Your task to perform on an android device: all mails in gmail Image 0: 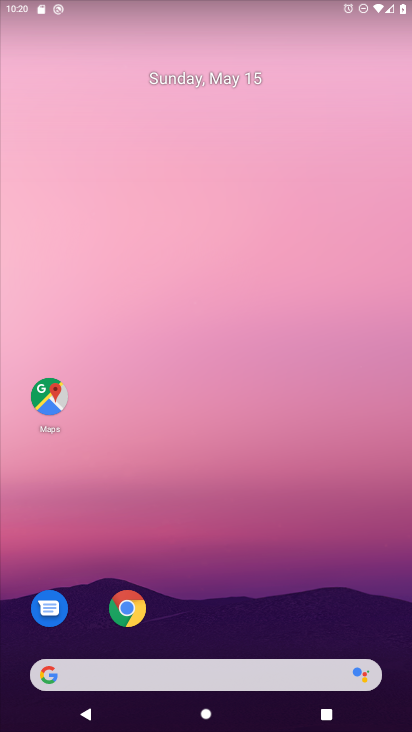
Step 0: drag from (282, 596) to (290, 176)
Your task to perform on an android device: all mails in gmail Image 1: 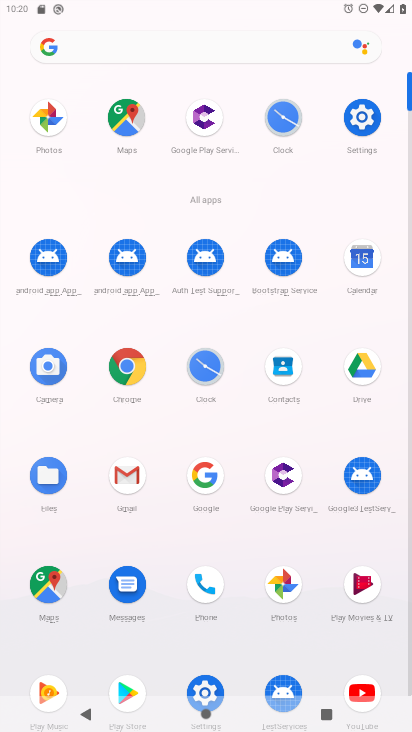
Step 1: drag from (231, 647) to (250, 207)
Your task to perform on an android device: all mails in gmail Image 2: 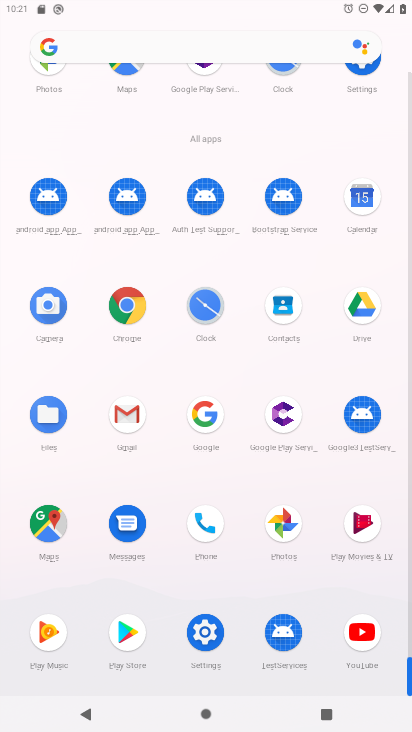
Step 2: click (110, 414)
Your task to perform on an android device: all mails in gmail Image 3: 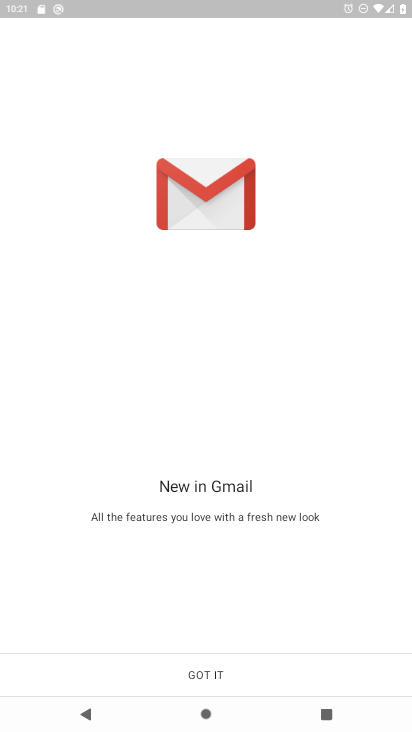
Step 3: click (222, 674)
Your task to perform on an android device: all mails in gmail Image 4: 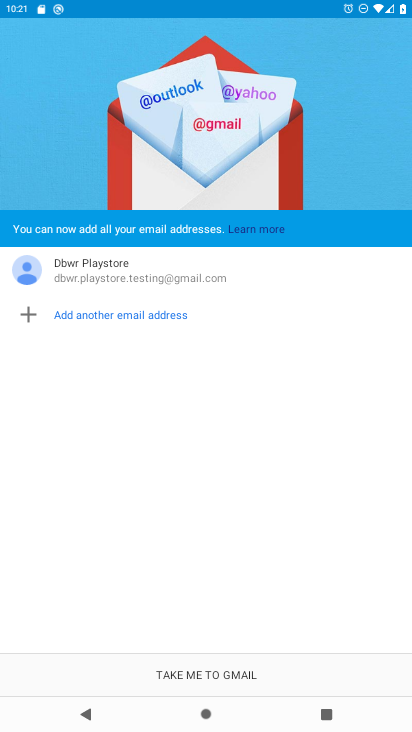
Step 4: click (247, 673)
Your task to perform on an android device: all mails in gmail Image 5: 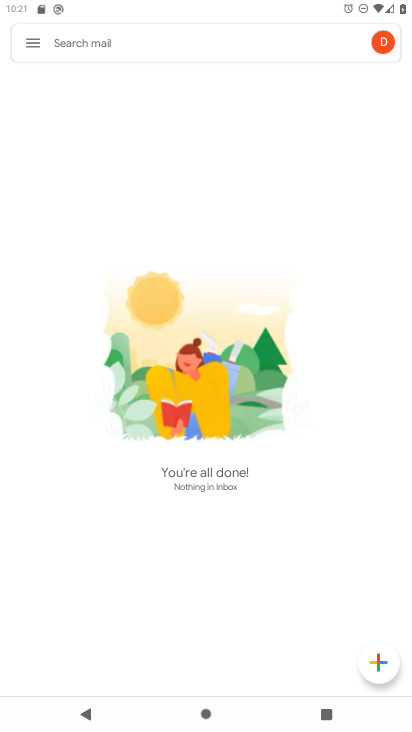
Step 5: click (34, 42)
Your task to perform on an android device: all mails in gmail Image 6: 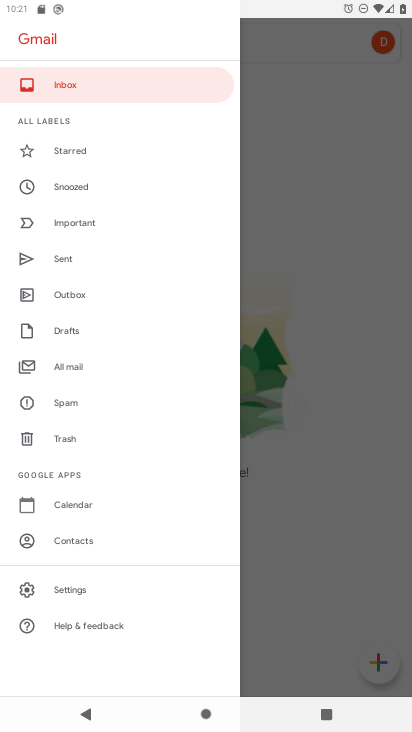
Step 6: click (105, 363)
Your task to perform on an android device: all mails in gmail Image 7: 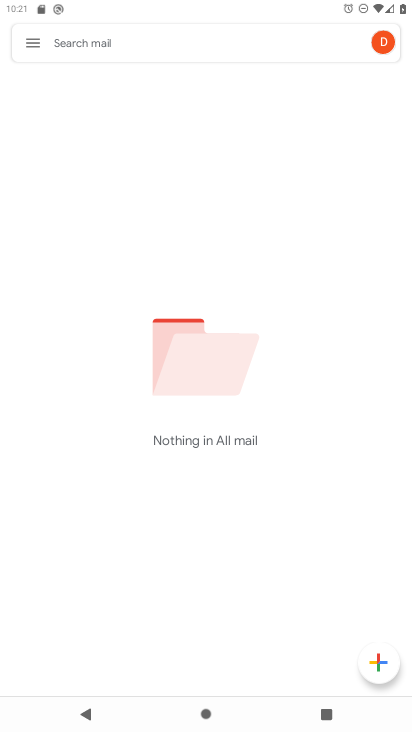
Step 7: task complete